Your task to perform on an android device: Open Yahoo.com Image 0: 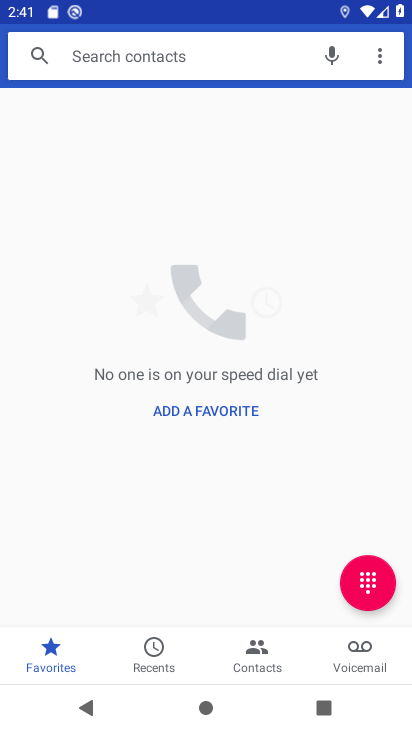
Step 0: press home button
Your task to perform on an android device: Open Yahoo.com Image 1: 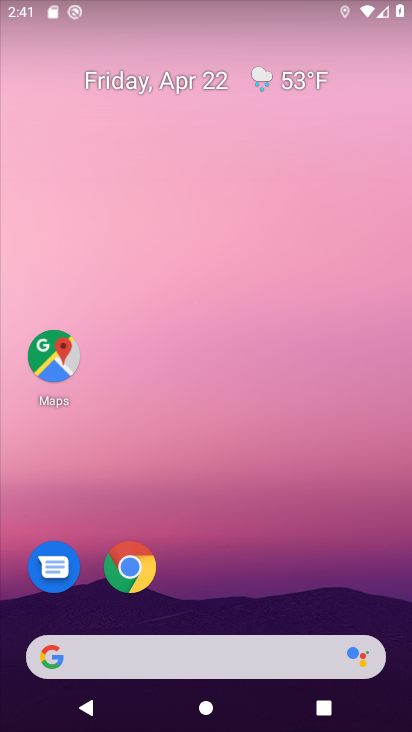
Step 1: click (142, 560)
Your task to perform on an android device: Open Yahoo.com Image 2: 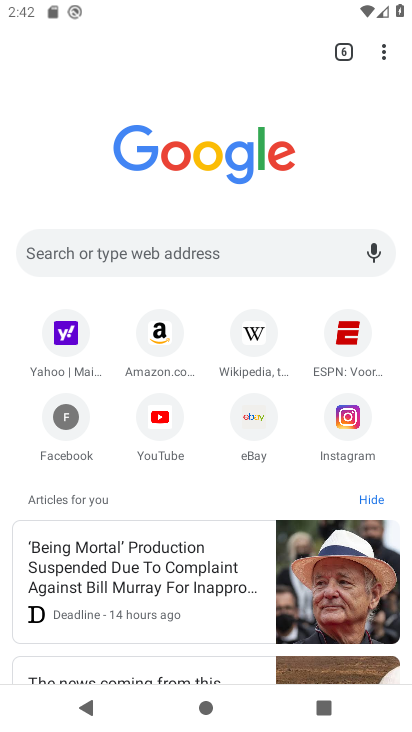
Step 2: click (65, 330)
Your task to perform on an android device: Open Yahoo.com Image 3: 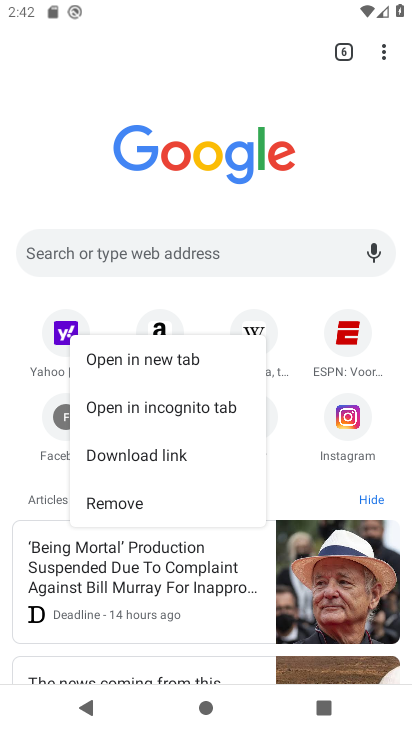
Step 3: click (65, 330)
Your task to perform on an android device: Open Yahoo.com Image 4: 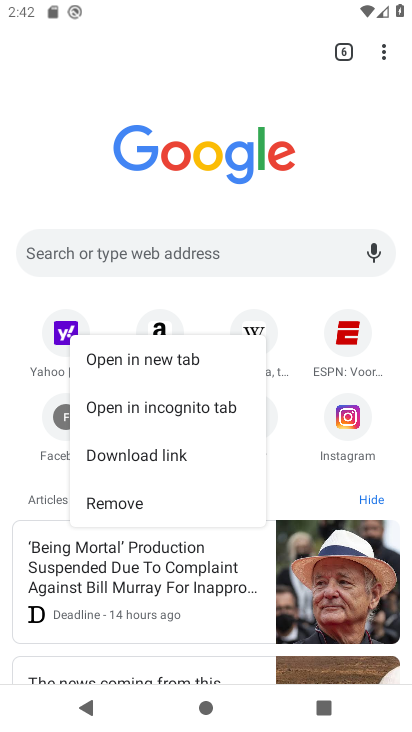
Step 4: click (63, 327)
Your task to perform on an android device: Open Yahoo.com Image 5: 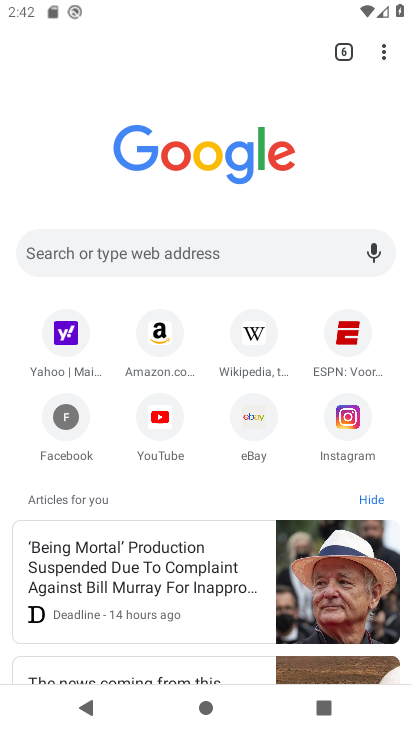
Step 5: click (63, 327)
Your task to perform on an android device: Open Yahoo.com Image 6: 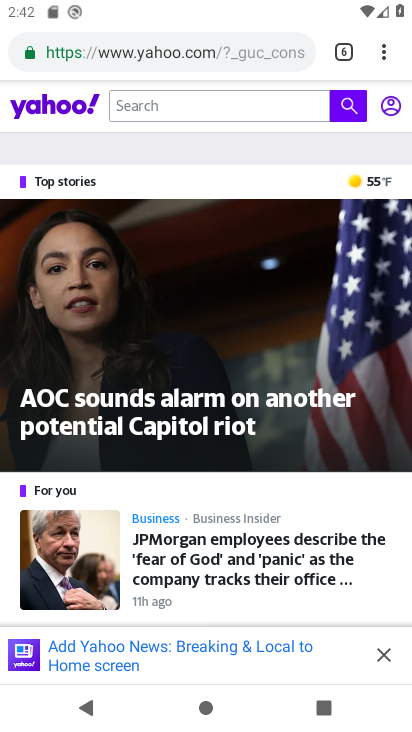
Step 6: task complete